Your task to perform on an android device: change the clock display to analog Image 0: 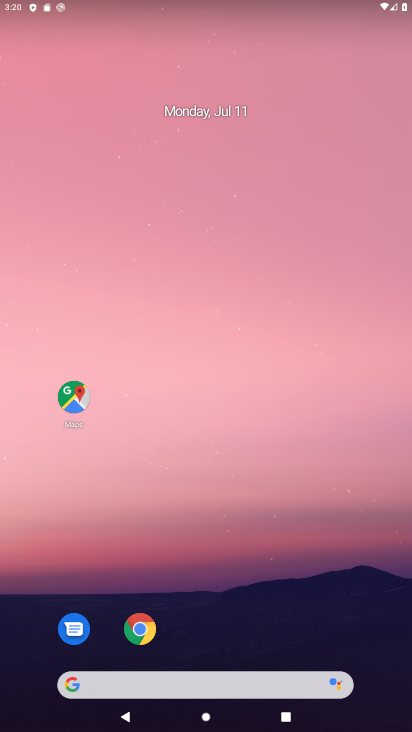
Step 0: drag from (244, 663) to (126, 20)
Your task to perform on an android device: change the clock display to analog Image 1: 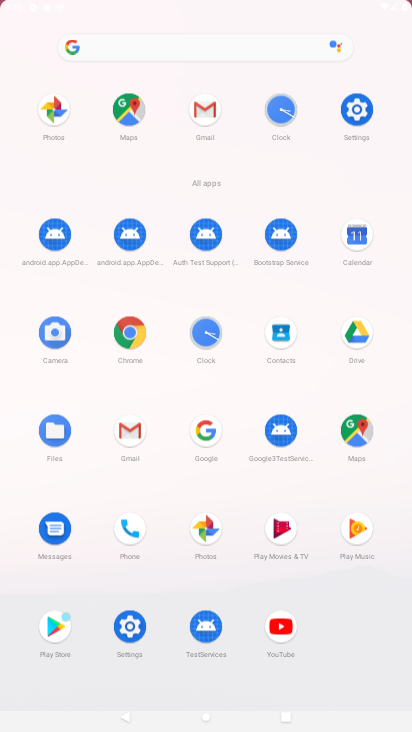
Step 1: drag from (199, 644) to (204, 155)
Your task to perform on an android device: change the clock display to analog Image 2: 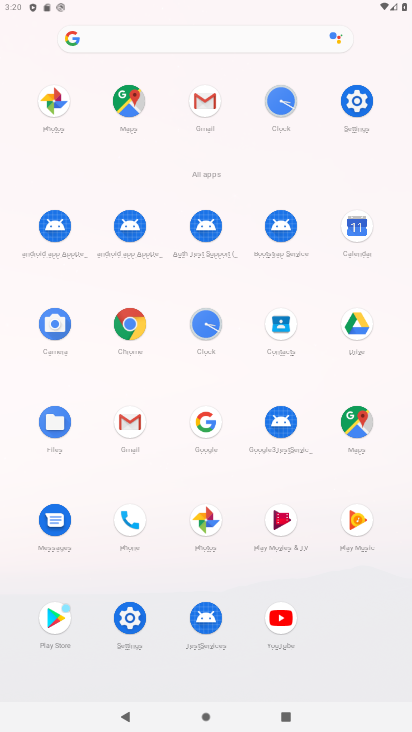
Step 2: click (278, 92)
Your task to perform on an android device: change the clock display to analog Image 3: 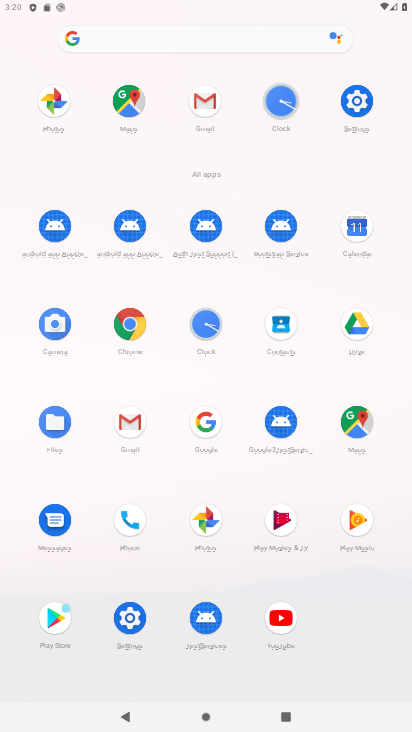
Step 3: click (277, 93)
Your task to perform on an android device: change the clock display to analog Image 4: 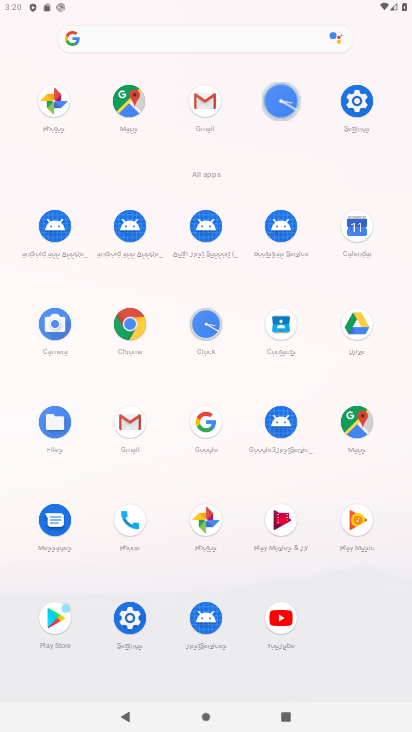
Step 4: click (277, 93)
Your task to perform on an android device: change the clock display to analog Image 5: 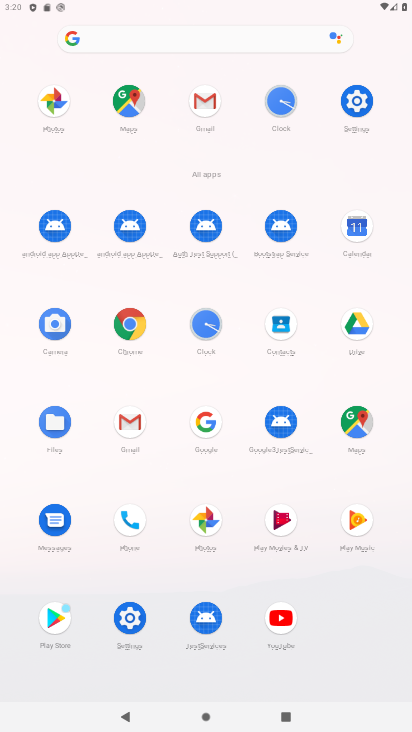
Step 5: click (277, 93)
Your task to perform on an android device: change the clock display to analog Image 6: 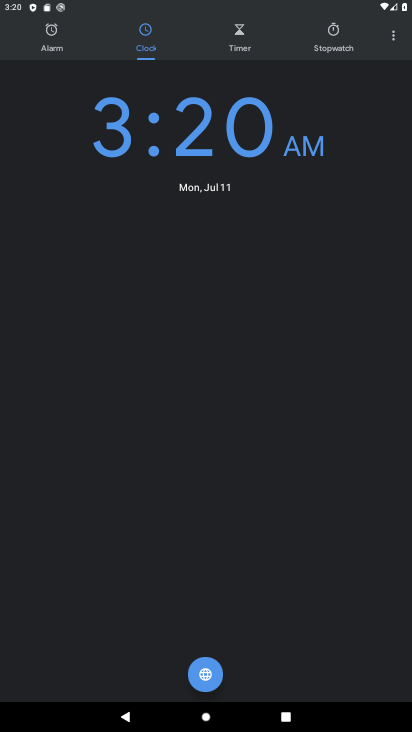
Step 6: click (392, 37)
Your task to perform on an android device: change the clock display to analog Image 7: 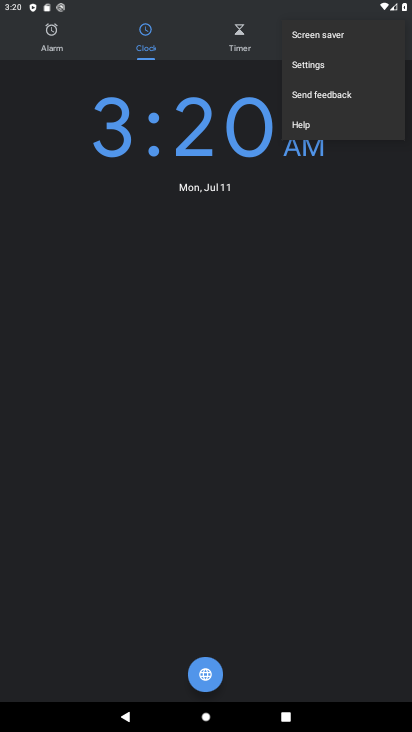
Step 7: click (292, 67)
Your task to perform on an android device: change the clock display to analog Image 8: 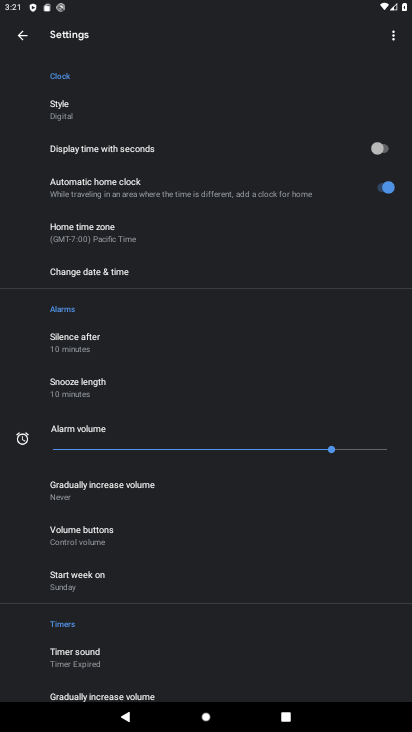
Step 8: click (56, 109)
Your task to perform on an android device: change the clock display to analog Image 9: 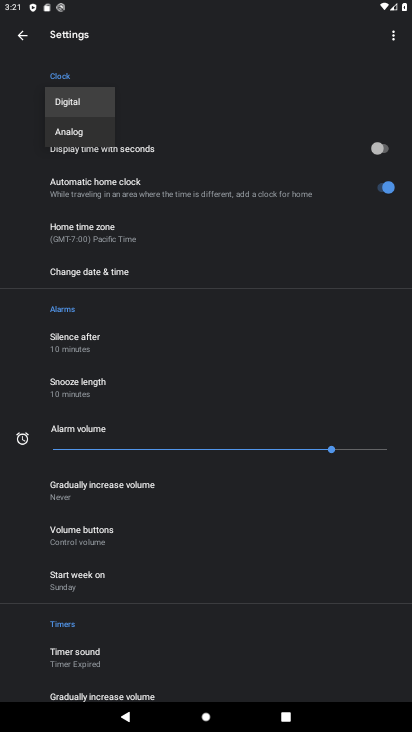
Step 9: click (70, 134)
Your task to perform on an android device: change the clock display to analog Image 10: 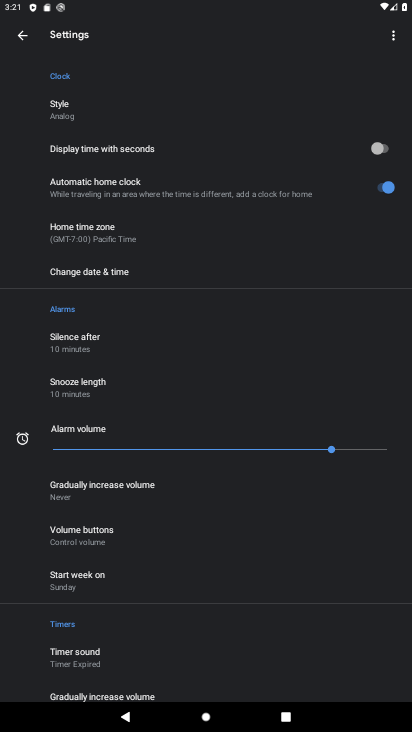
Step 10: task complete